Your task to perform on an android device: Open display settings Image 0: 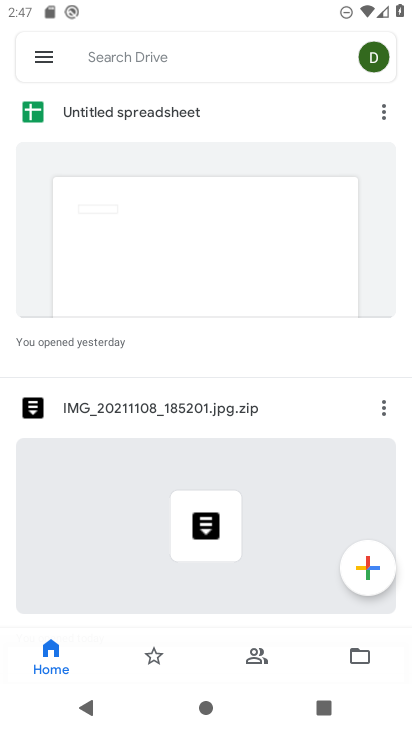
Step 0: press home button
Your task to perform on an android device: Open display settings Image 1: 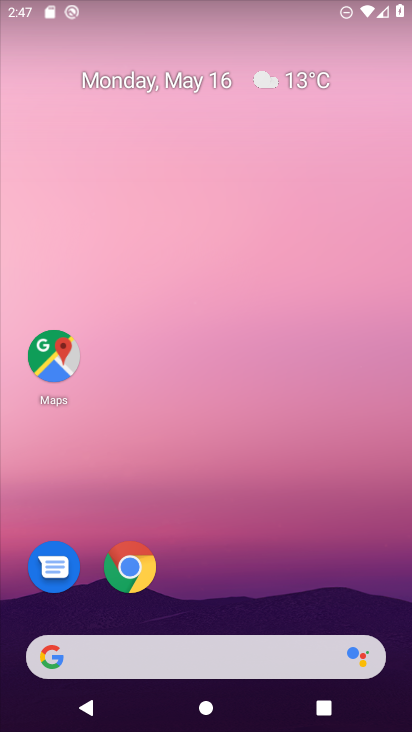
Step 1: drag from (237, 605) to (261, 190)
Your task to perform on an android device: Open display settings Image 2: 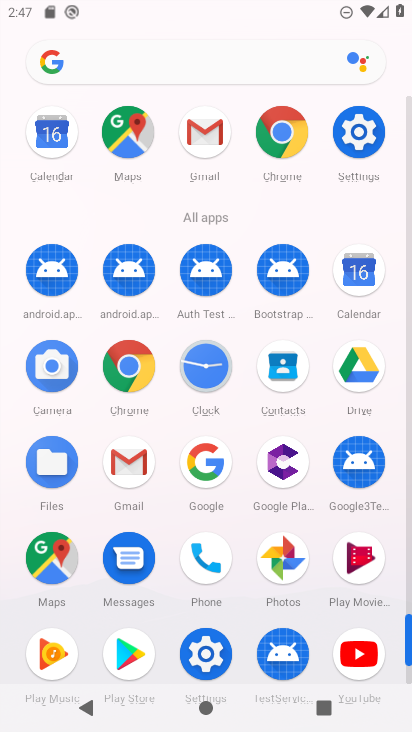
Step 2: click (213, 665)
Your task to perform on an android device: Open display settings Image 3: 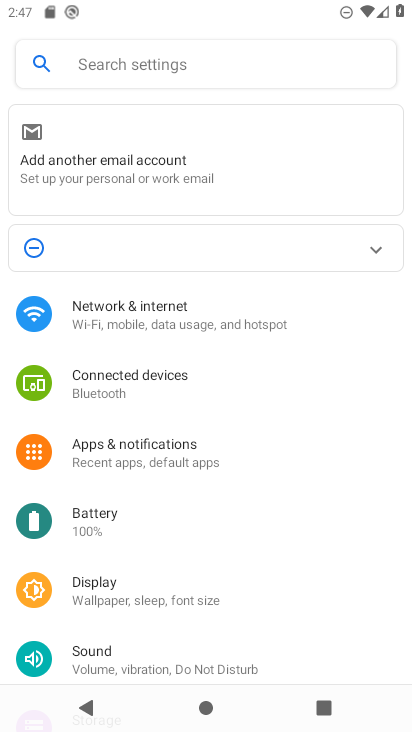
Step 3: click (84, 587)
Your task to perform on an android device: Open display settings Image 4: 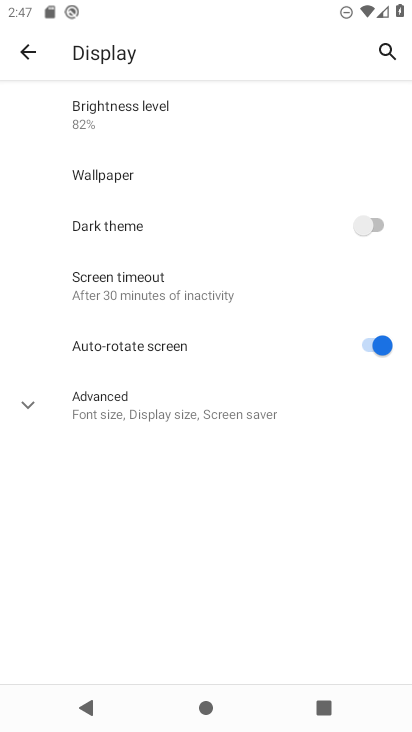
Step 4: task complete